Your task to perform on an android device: see creations saved in the google photos Image 0: 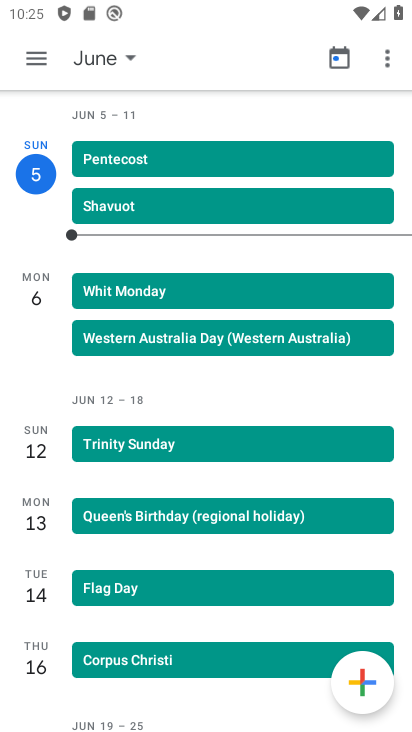
Step 0: press home button
Your task to perform on an android device: see creations saved in the google photos Image 1: 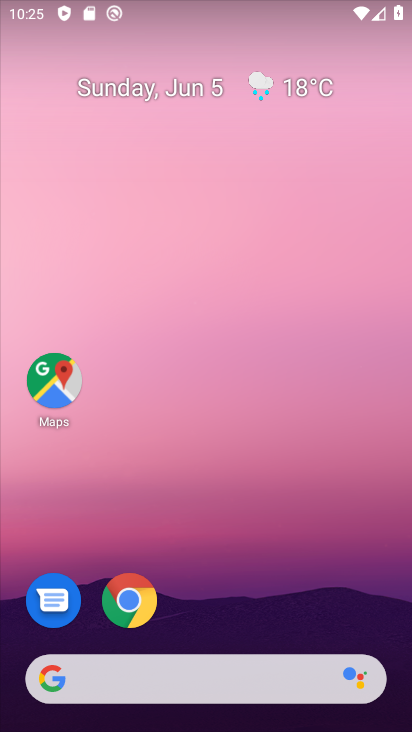
Step 1: drag from (217, 566) to (213, 130)
Your task to perform on an android device: see creations saved in the google photos Image 2: 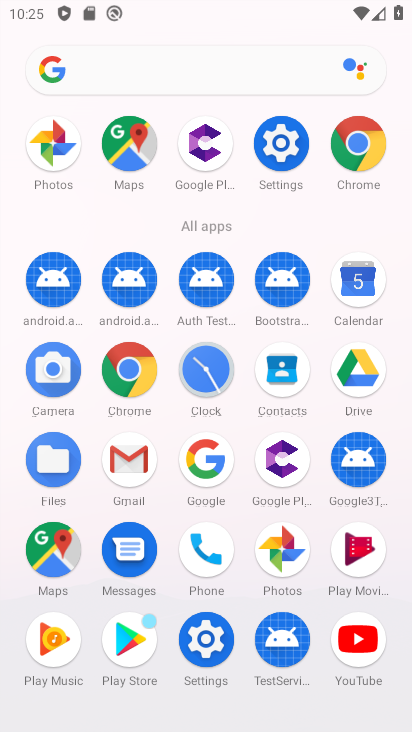
Step 2: click (41, 163)
Your task to perform on an android device: see creations saved in the google photos Image 3: 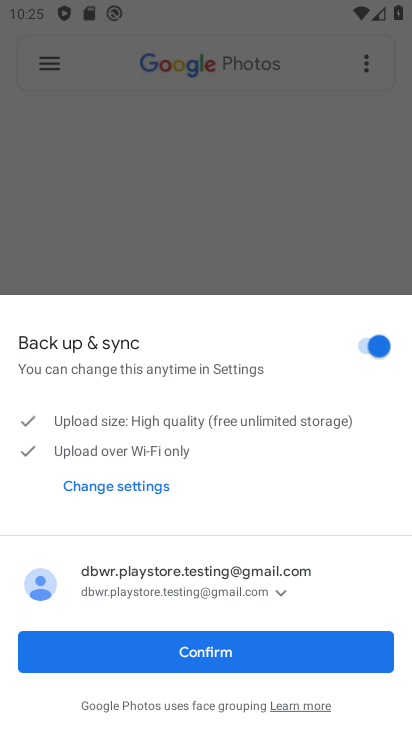
Step 3: click (218, 640)
Your task to perform on an android device: see creations saved in the google photos Image 4: 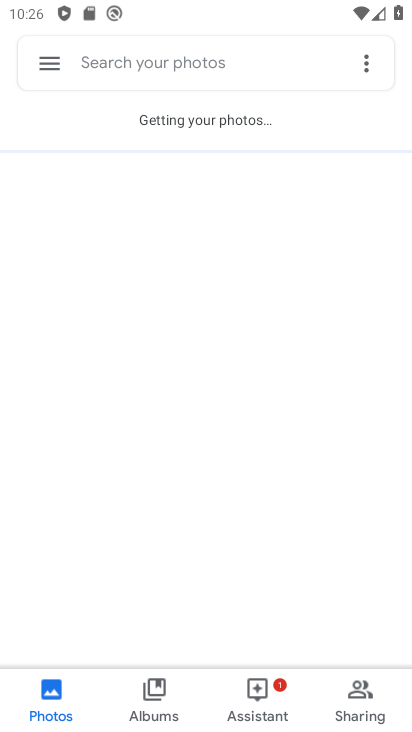
Step 4: click (213, 74)
Your task to perform on an android device: see creations saved in the google photos Image 5: 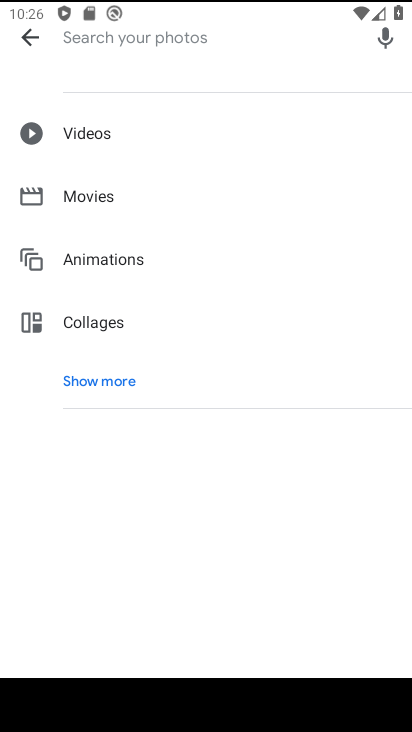
Step 5: type "creations"
Your task to perform on an android device: see creations saved in the google photos Image 6: 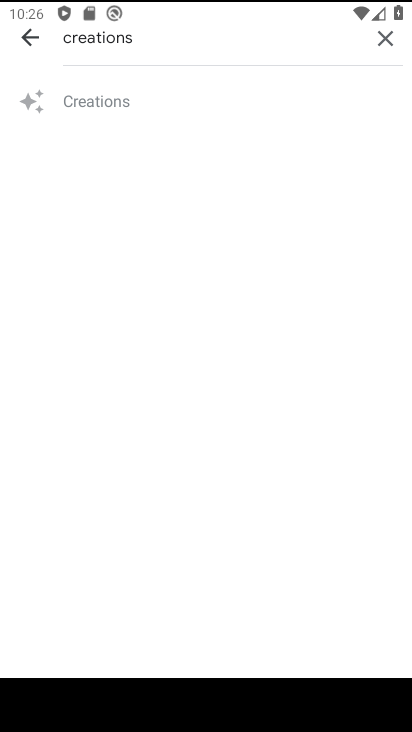
Step 6: click (53, 93)
Your task to perform on an android device: see creations saved in the google photos Image 7: 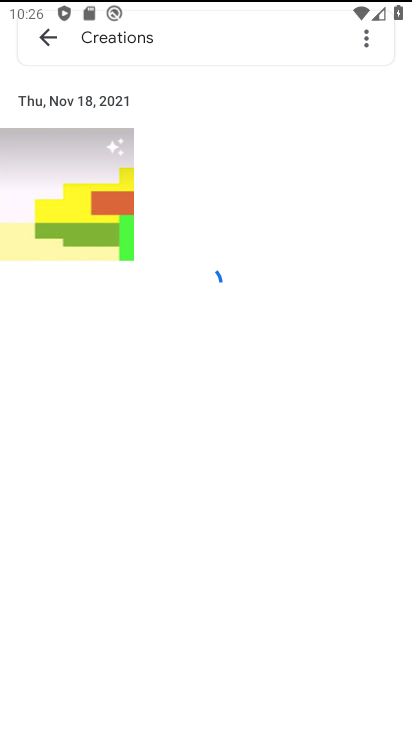
Step 7: task complete